Your task to perform on an android device: Go to Android settings Image 0: 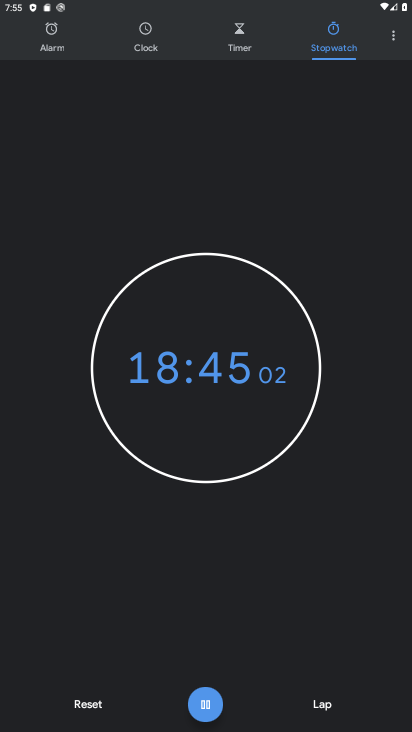
Step 0: press home button
Your task to perform on an android device: Go to Android settings Image 1: 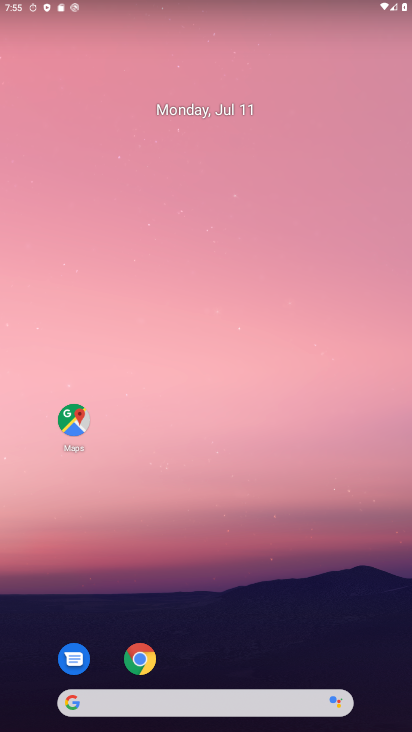
Step 1: drag from (340, 685) to (399, 103)
Your task to perform on an android device: Go to Android settings Image 2: 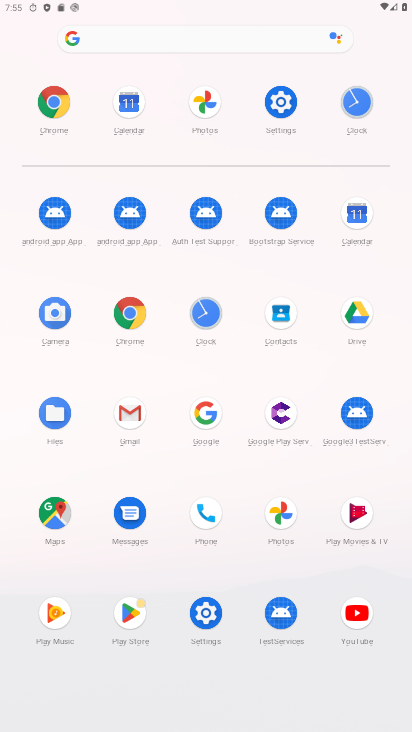
Step 2: click (280, 95)
Your task to perform on an android device: Go to Android settings Image 3: 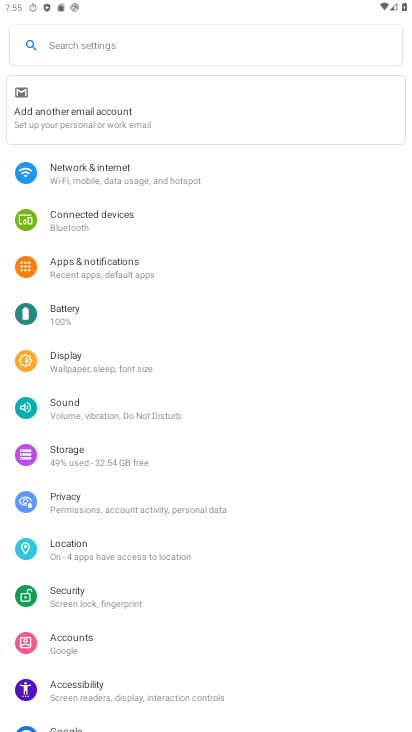
Step 3: drag from (213, 666) to (283, 152)
Your task to perform on an android device: Go to Android settings Image 4: 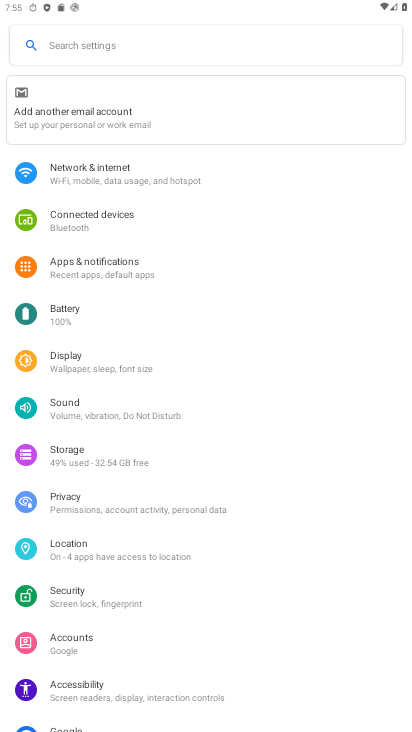
Step 4: drag from (226, 656) to (219, 2)
Your task to perform on an android device: Go to Android settings Image 5: 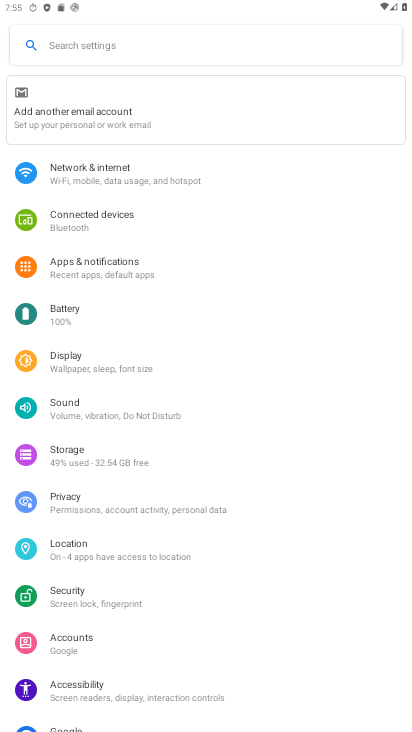
Step 5: drag from (244, 646) to (288, 0)
Your task to perform on an android device: Go to Android settings Image 6: 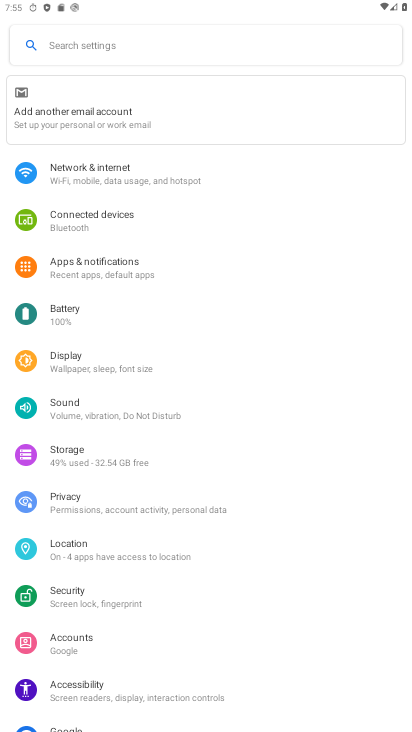
Step 6: drag from (87, 692) to (172, 5)
Your task to perform on an android device: Go to Android settings Image 7: 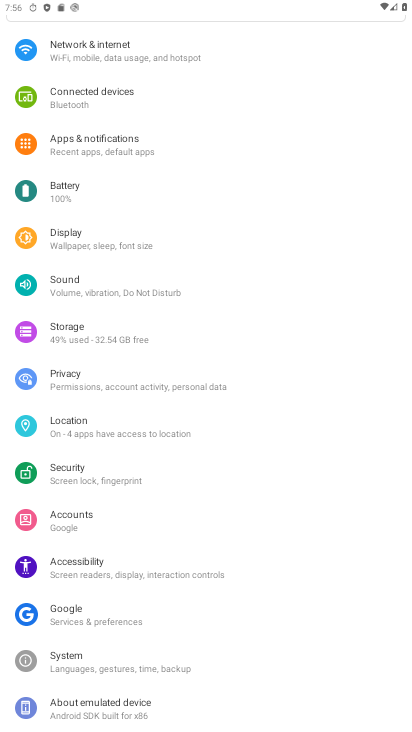
Step 7: click (99, 693)
Your task to perform on an android device: Go to Android settings Image 8: 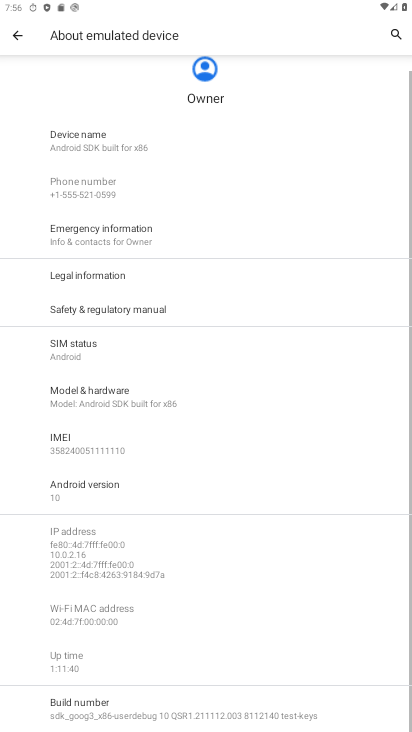
Step 8: task complete